Your task to perform on an android device: turn pop-ups on in chrome Image 0: 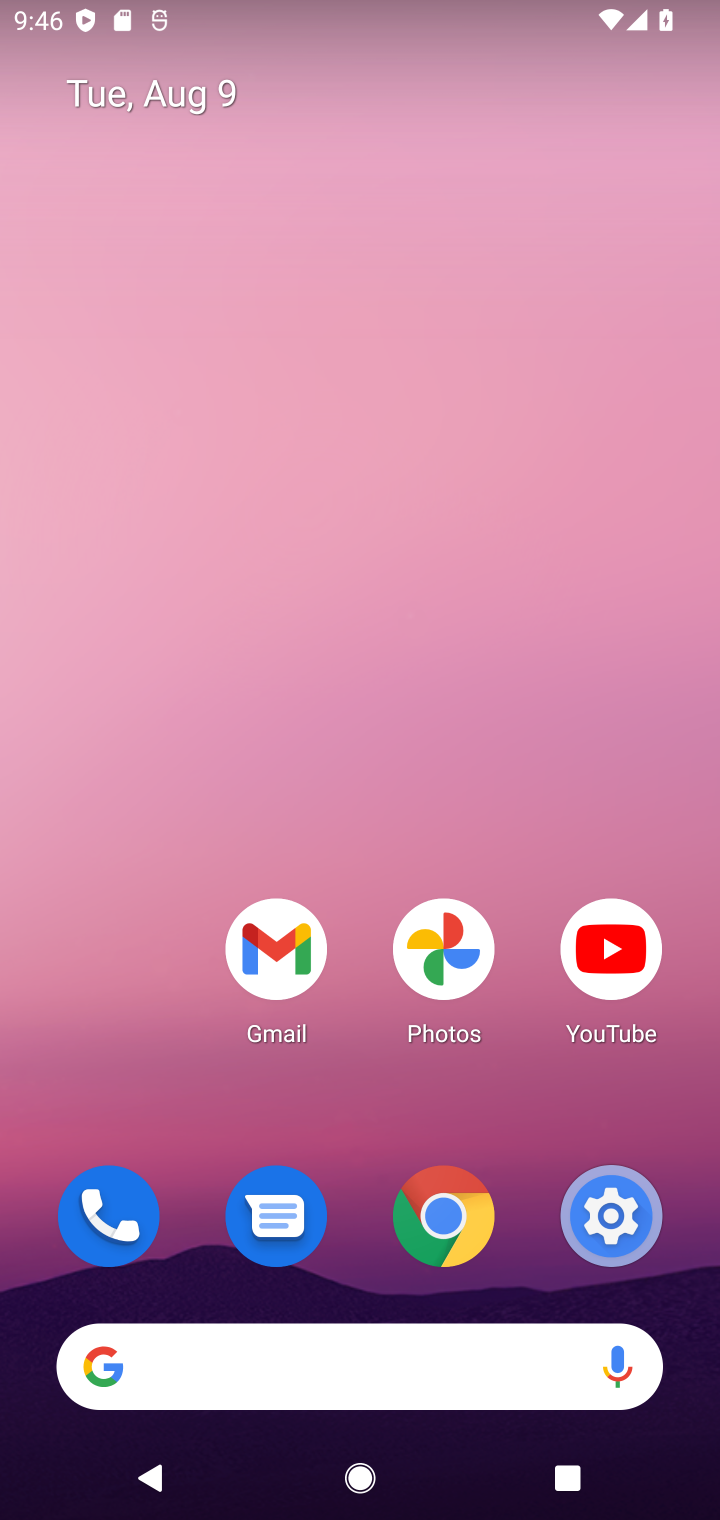
Step 0: drag from (311, 1129) to (497, 122)
Your task to perform on an android device: turn pop-ups on in chrome Image 1: 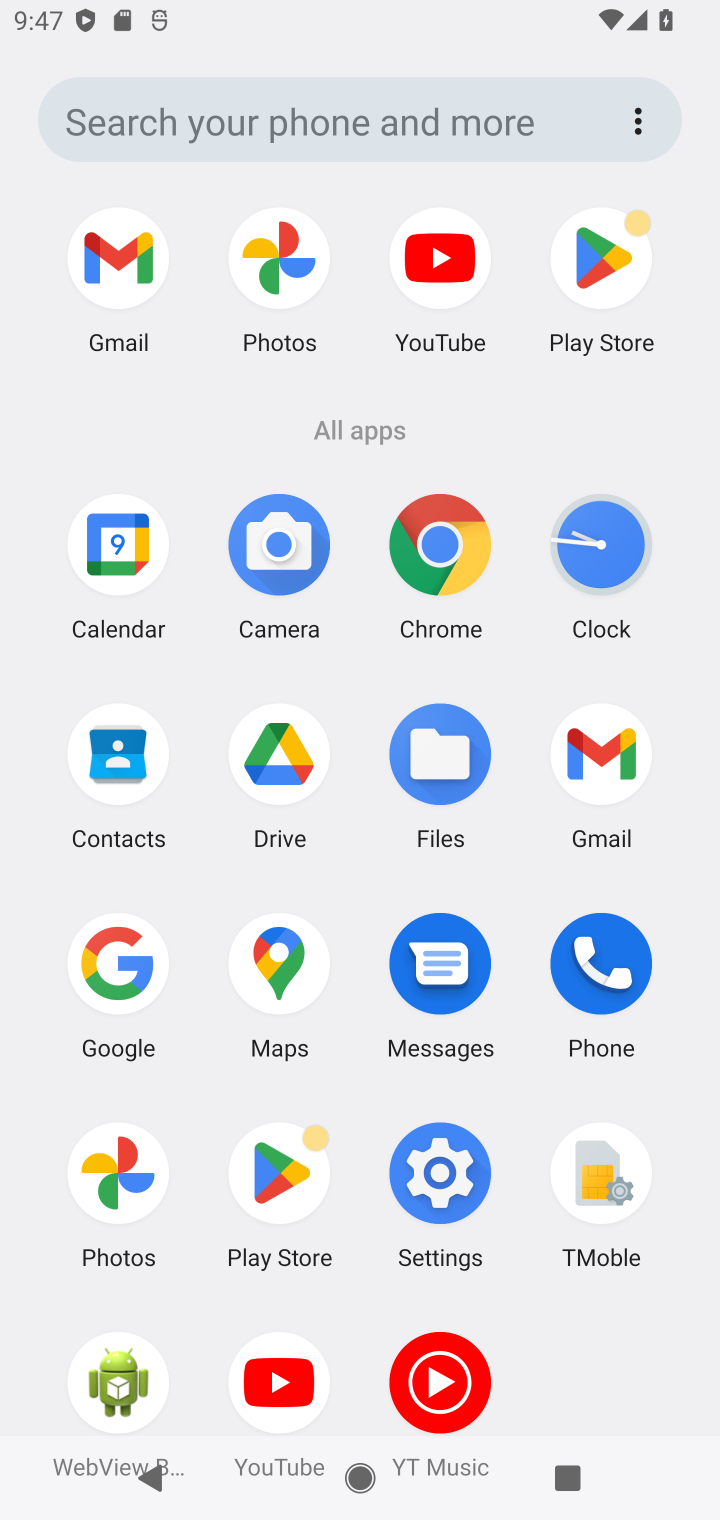
Step 1: click (438, 1191)
Your task to perform on an android device: turn pop-ups on in chrome Image 2: 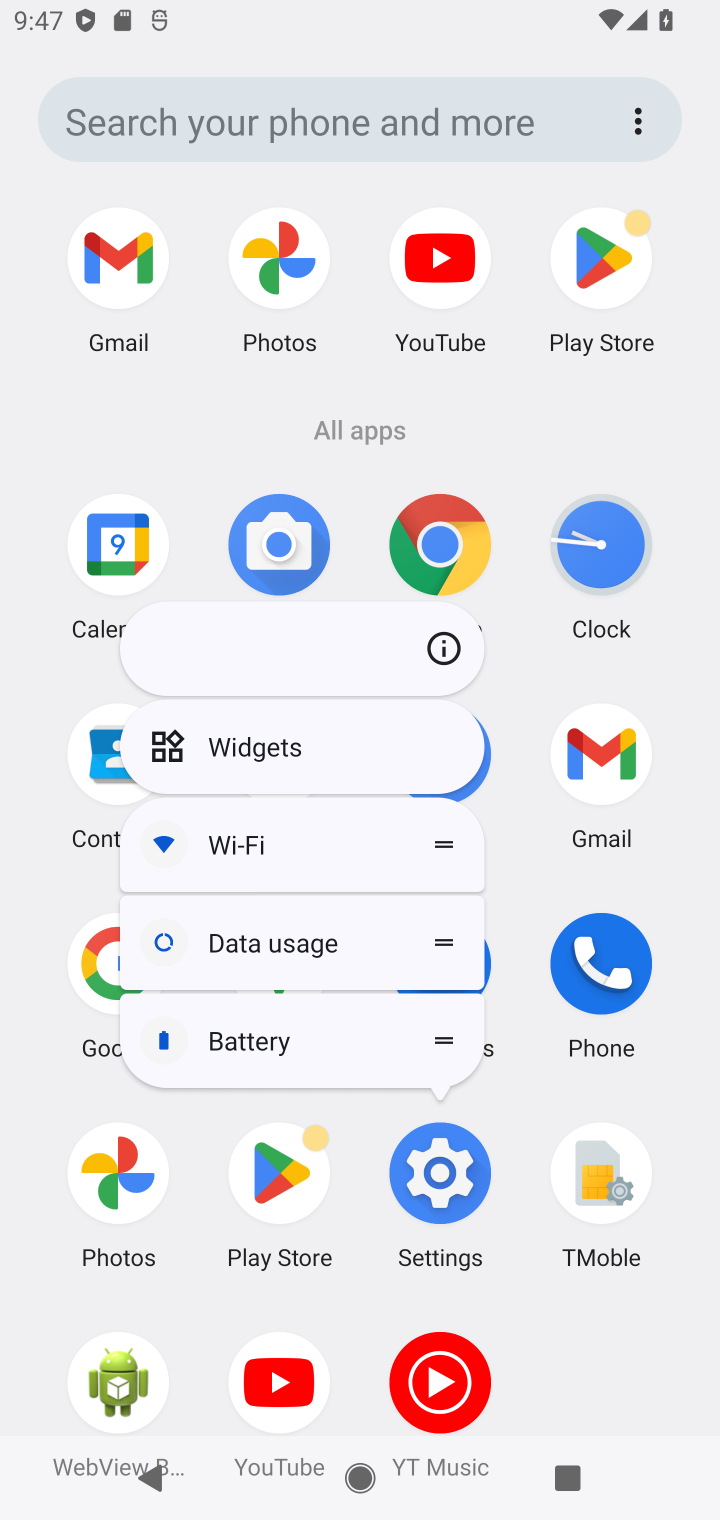
Step 2: click (454, 535)
Your task to perform on an android device: turn pop-ups on in chrome Image 3: 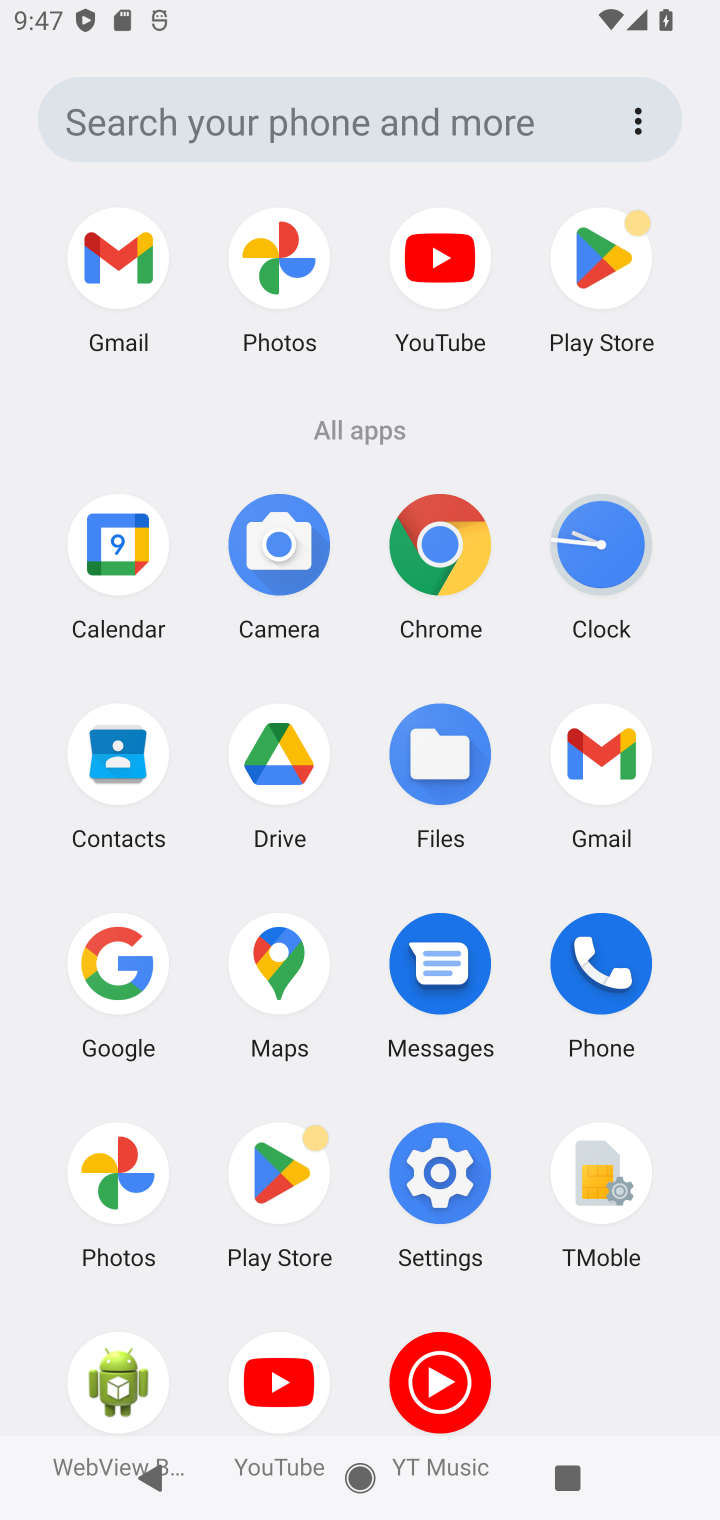
Step 3: click (454, 535)
Your task to perform on an android device: turn pop-ups on in chrome Image 4: 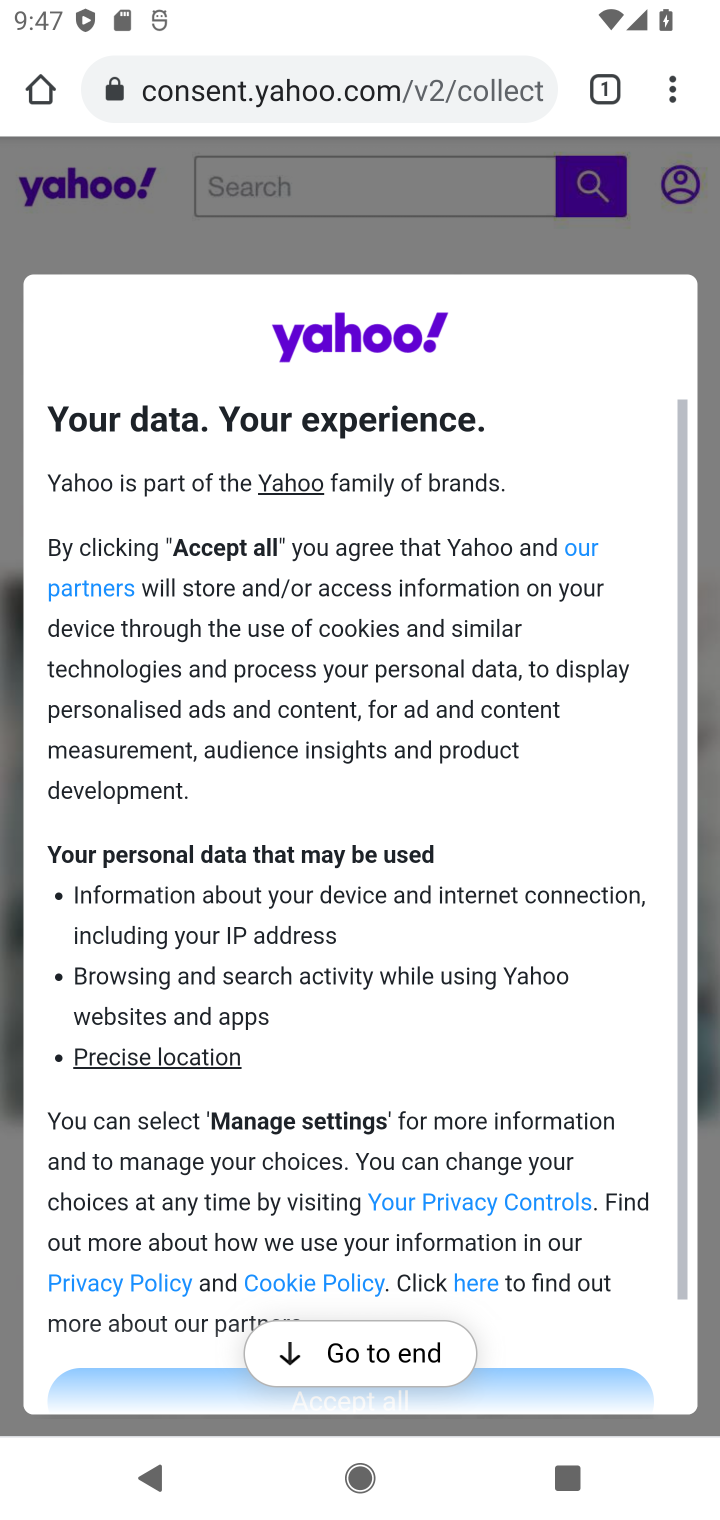
Step 4: drag from (687, 92) to (431, 1014)
Your task to perform on an android device: turn pop-ups on in chrome Image 5: 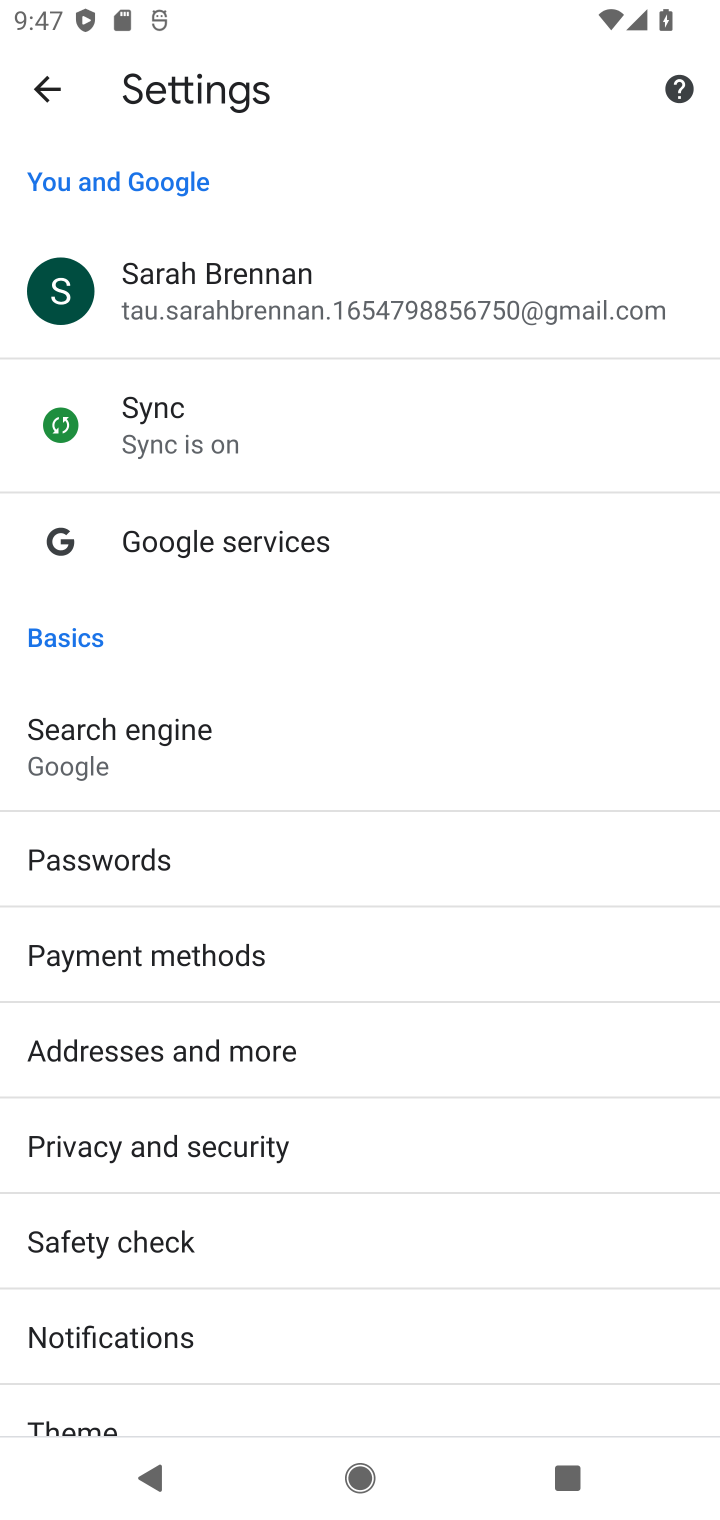
Step 5: drag from (237, 1327) to (541, 344)
Your task to perform on an android device: turn pop-ups on in chrome Image 6: 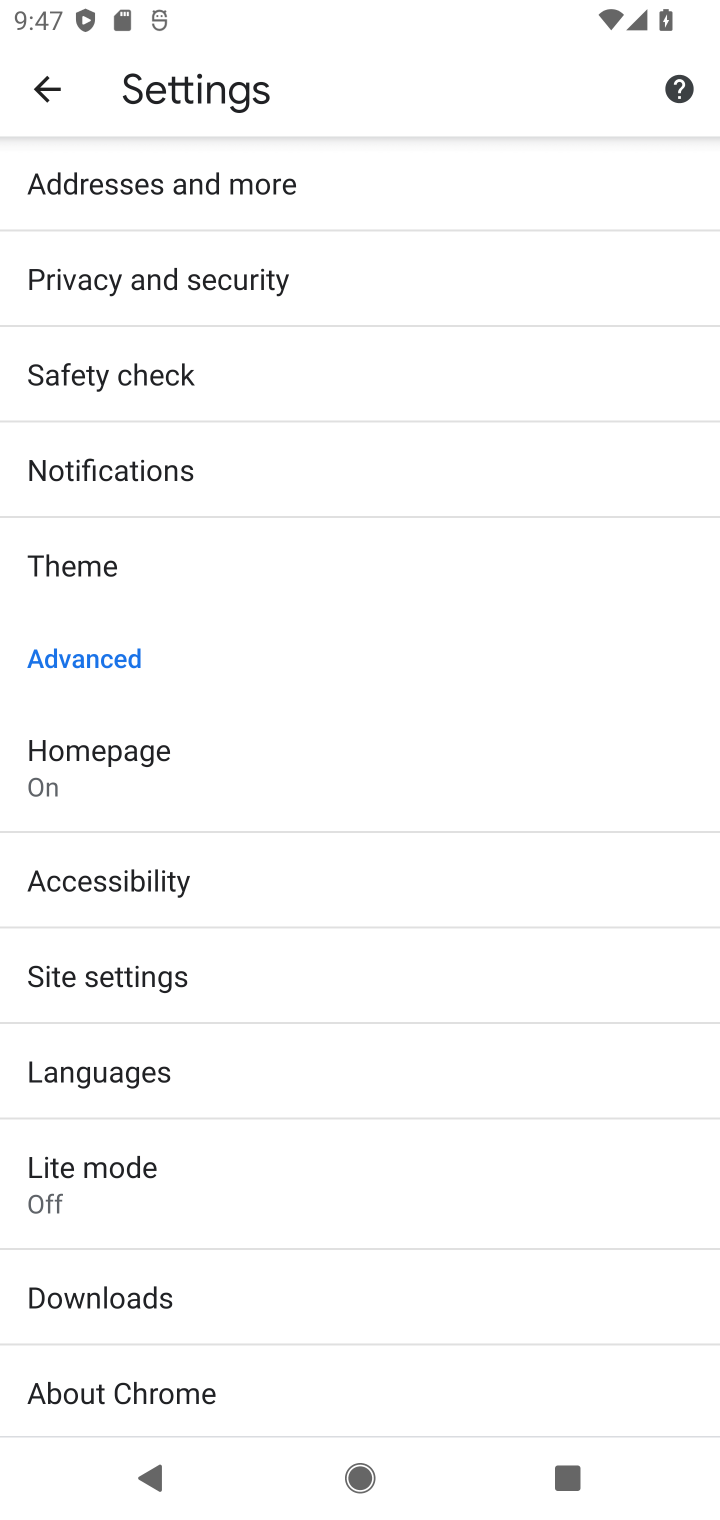
Step 6: drag from (527, 387) to (612, 529)
Your task to perform on an android device: turn pop-ups on in chrome Image 7: 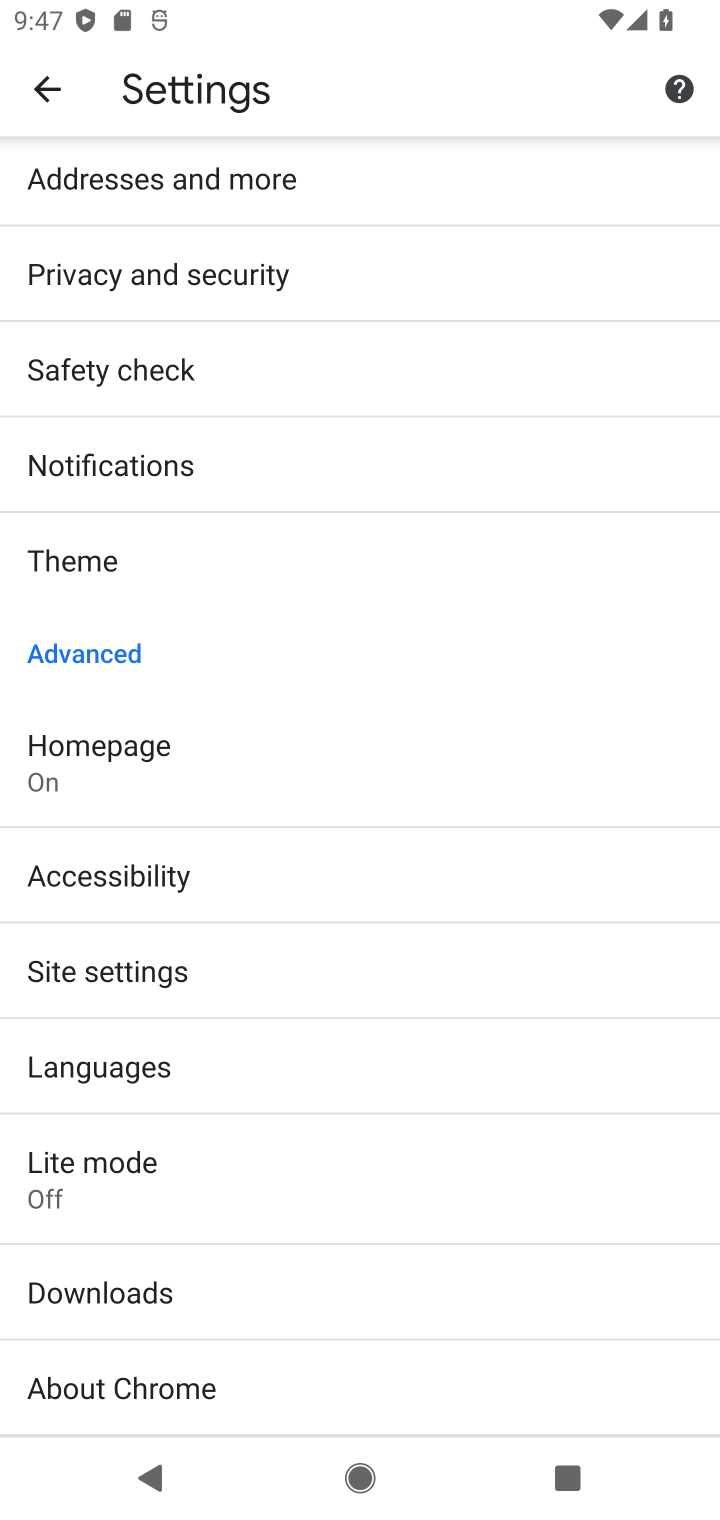
Step 7: click (174, 976)
Your task to perform on an android device: turn pop-ups on in chrome Image 8: 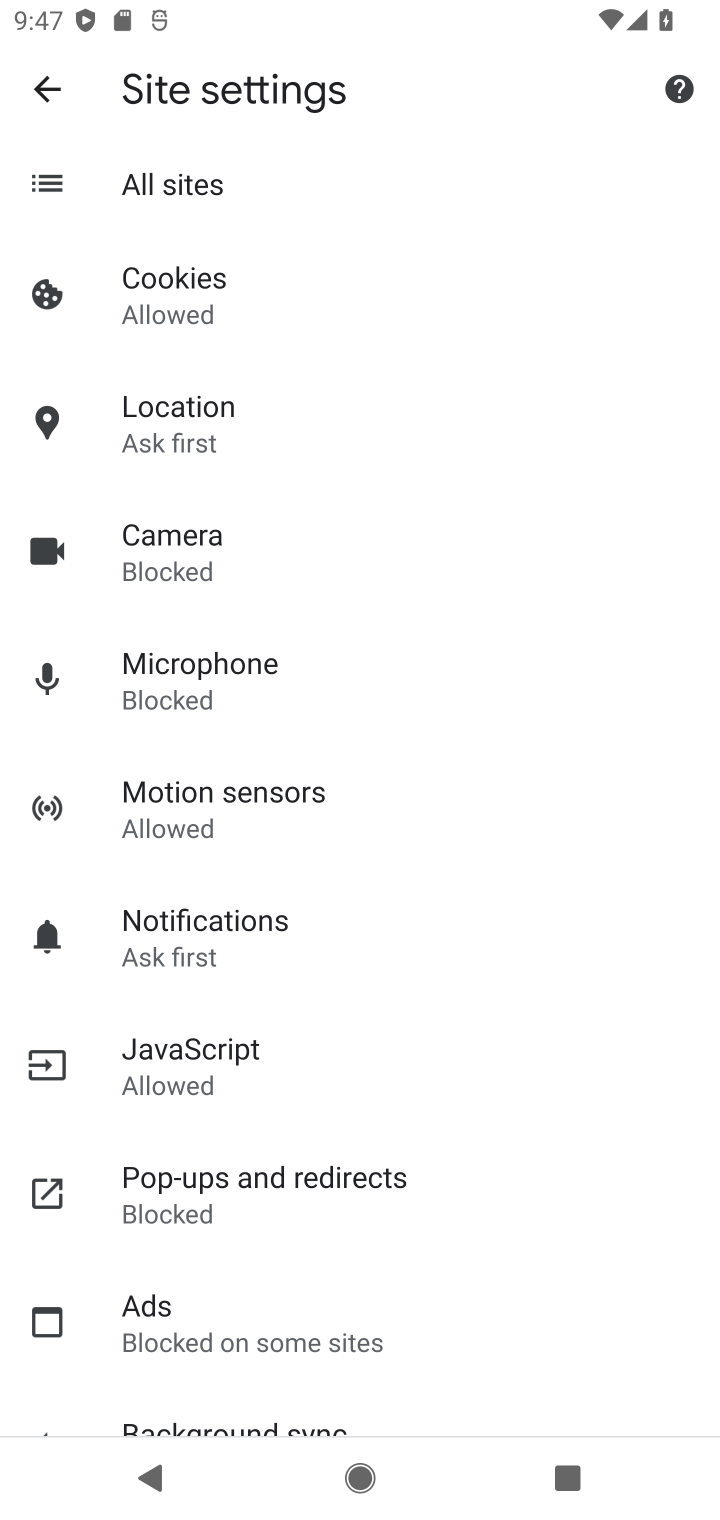
Step 8: click (226, 1195)
Your task to perform on an android device: turn pop-ups on in chrome Image 9: 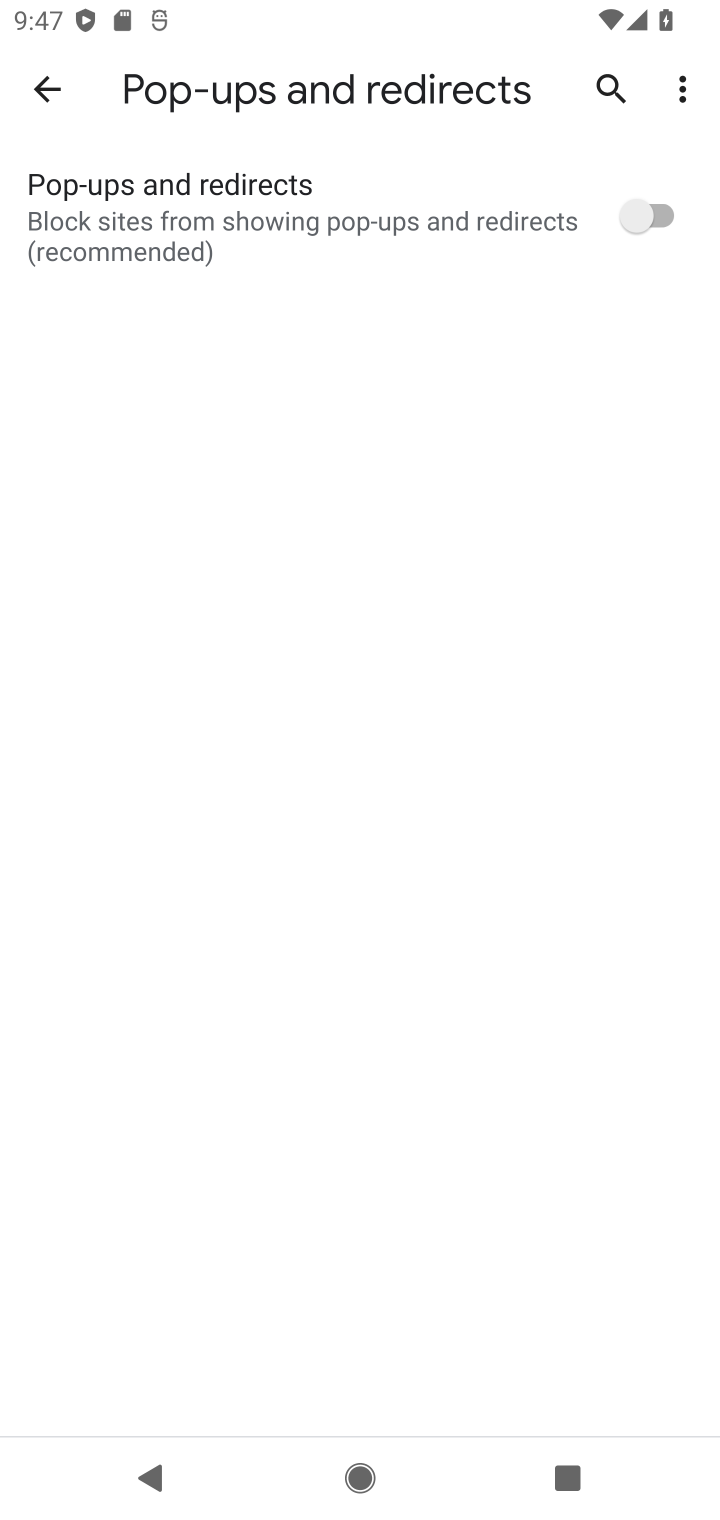
Step 9: click (637, 217)
Your task to perform on an android device: turn pop-ups on in chrome Image 10: 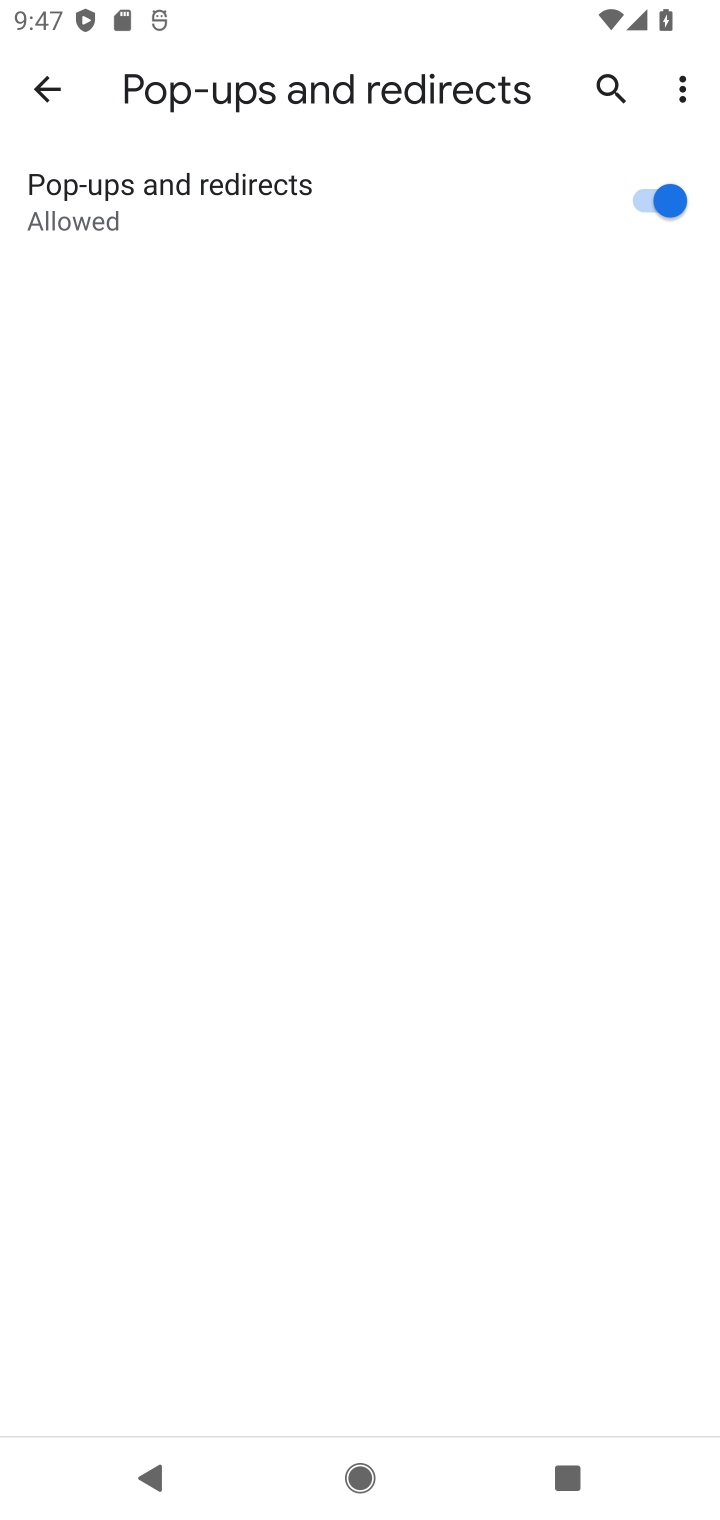
Step 10: task complete